Your task to perform on an android device: Go to location settings Image 0: 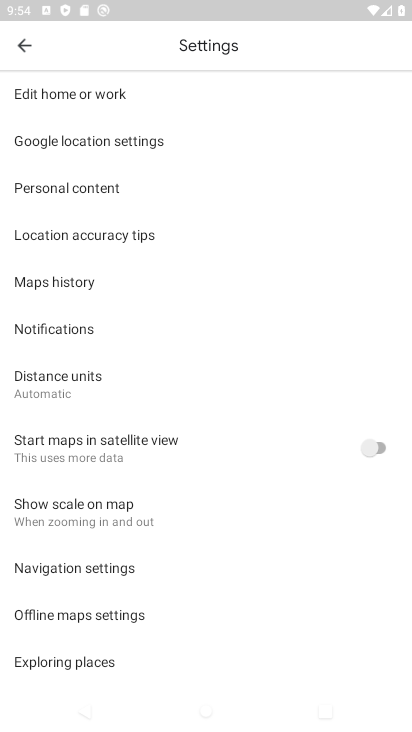
Step 0: press home button
Your task to perform on an android device: Go to location settings Image 1: 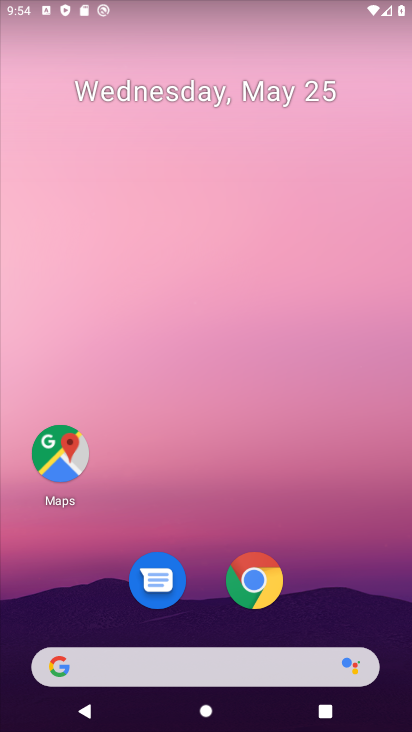
Step 1: drag from (27, 605) to (291, 33)
Your task to perform on an android device: Go to location settings Image 2: 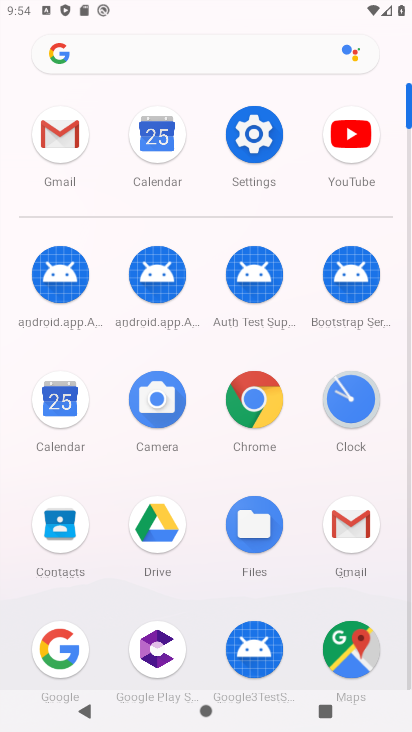
Step 2: click (240, 138)
Your task to perform on an android device: Go to location settings Image 3: 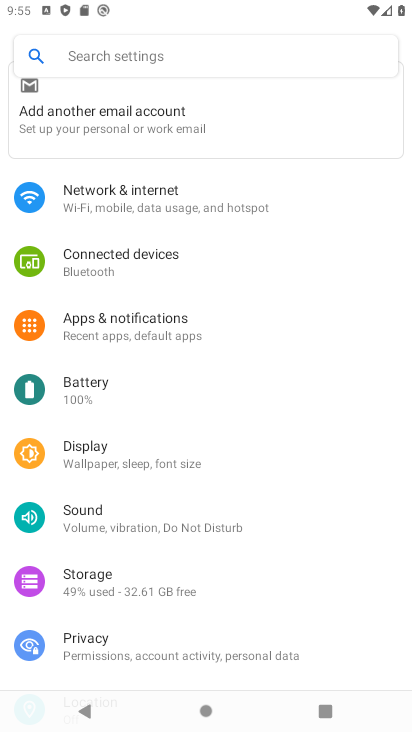
Step 3: drag from (5, 296) to (95, 117)
Your task to perform on an android device: Go to location settings Image 4: 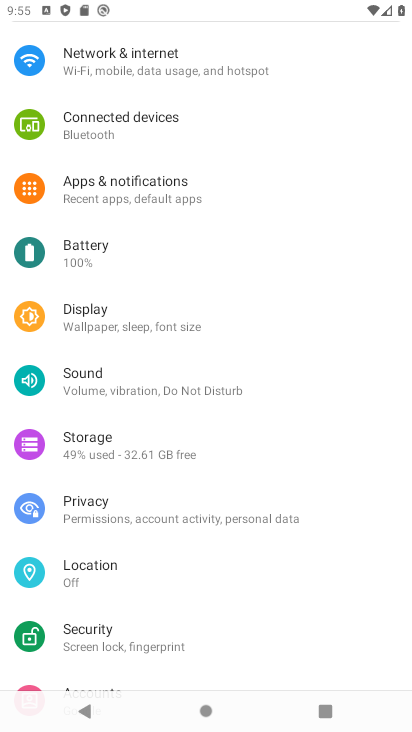
Step 4: click (67, 571)
Your task to perform on an android device: Go to location settings Image 5: 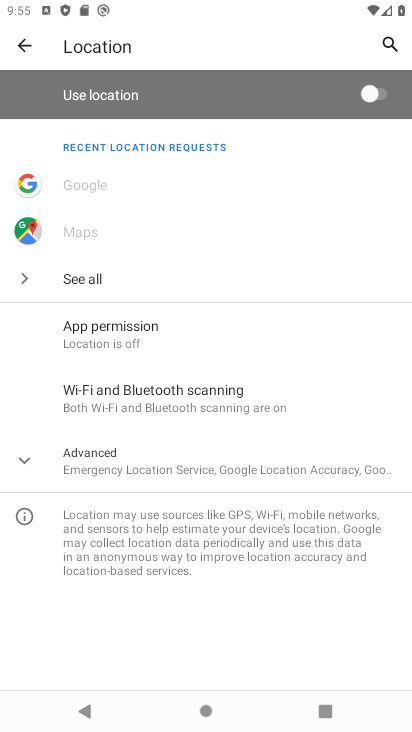
Step 5: task complete